Your task to perform on an android device: toggle airplane mode Image 0: 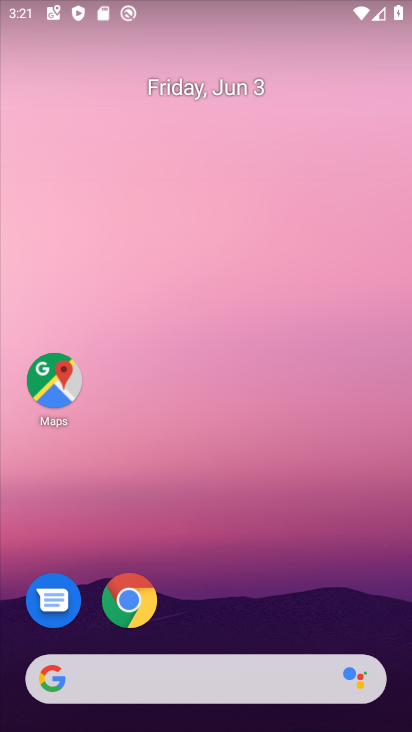
Step 0: drag from (206, 632) to (113, 6)
Your task to perform on an android device: toggle airplane mode Image 1: 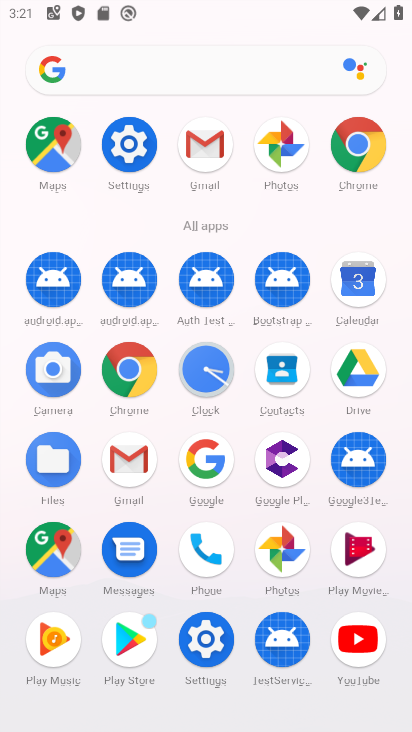
Step 1: click (130, 140)
Your task to perform on an android device: toggle airplane mode Image 2: 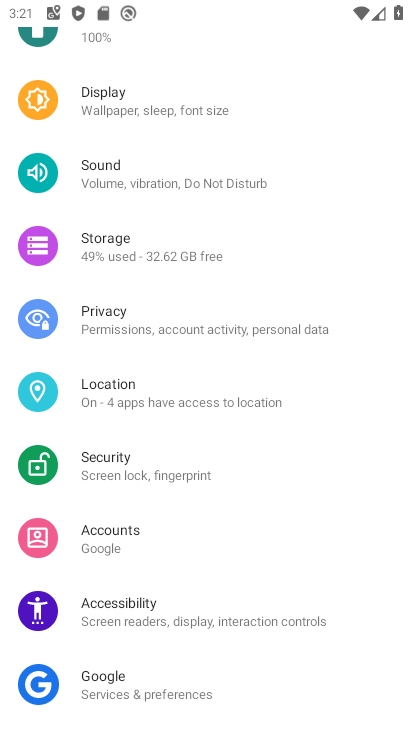
Step 2: drag from (220, 178) to (223, 661)
Your task to perform on an android device: toggle airplane mode Image 3: 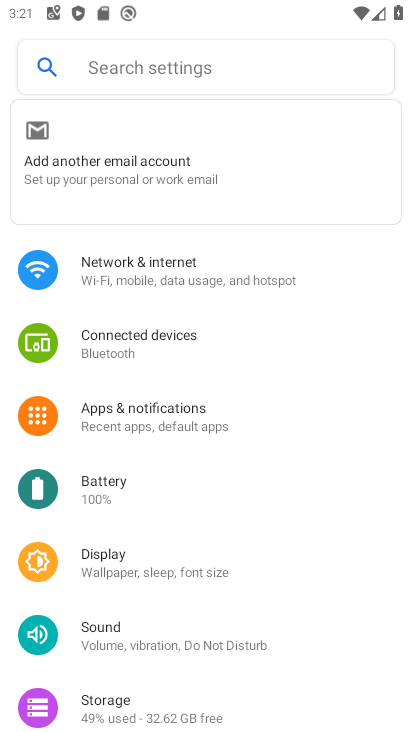
Step 3: click (173, 271)
Your task to perform on an android device: toggle airplane mode Image 4: 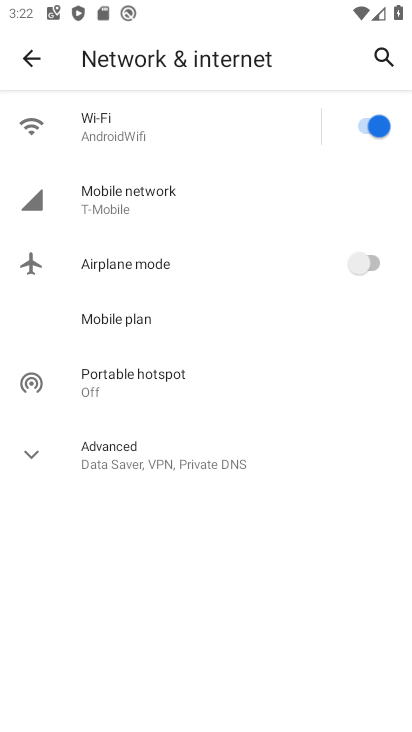
Step 4: click (377, 257)
Your task to perform on an android device: toggle airplane mode Image 5: 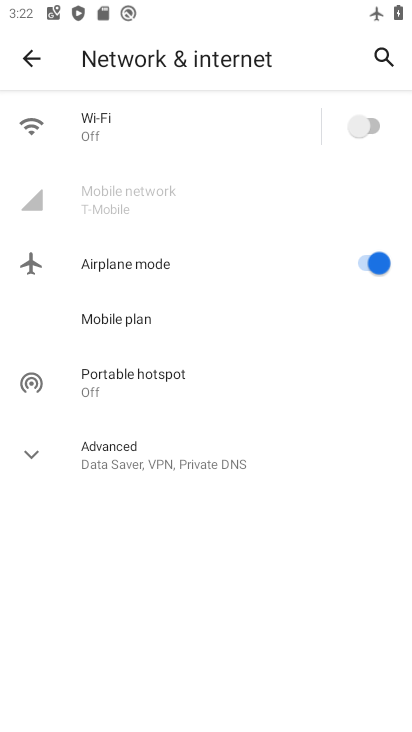
Step 5: task complete